Your task to perform on an android device: Clear the cart on walmart.com. Image 0: 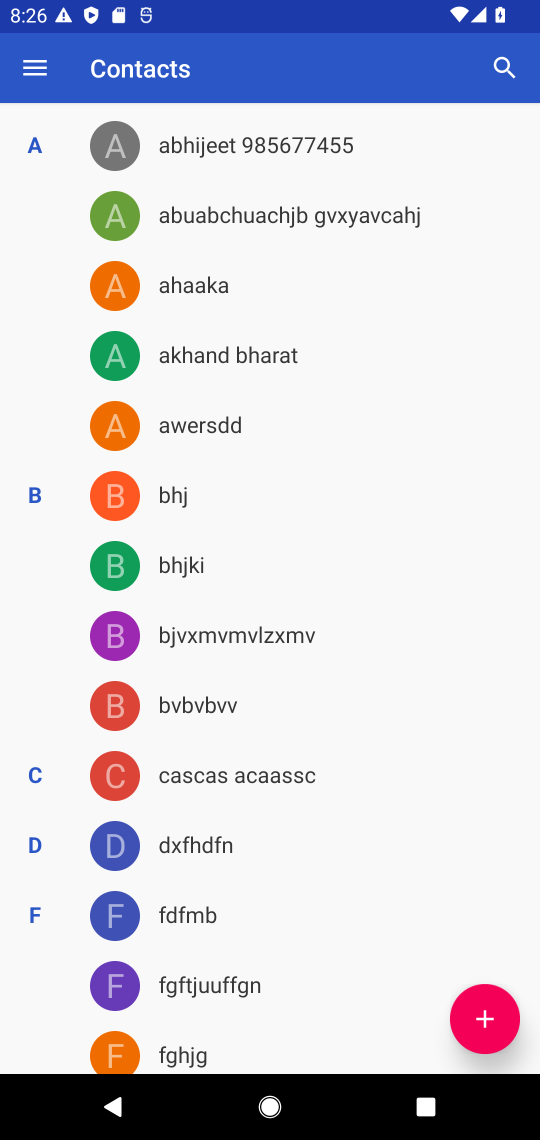
Step 0: press home button
Your task to perform on an android device: Clear the cart on walmart.com. Image 1: 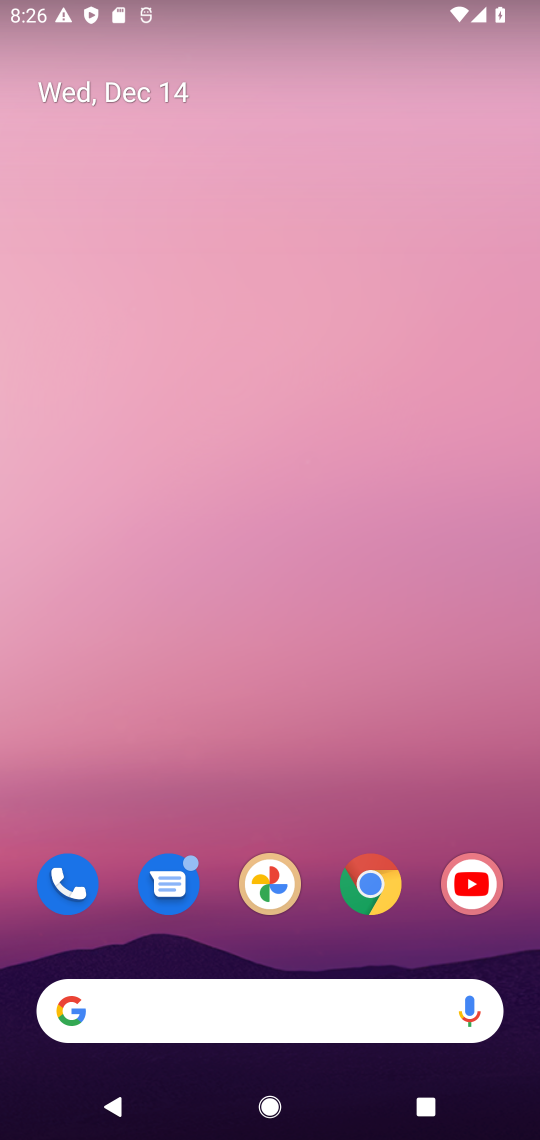
Step 1: click (379, 876)
Your task to perform on an android device: Clear the cart on walmart.com. Image 2: 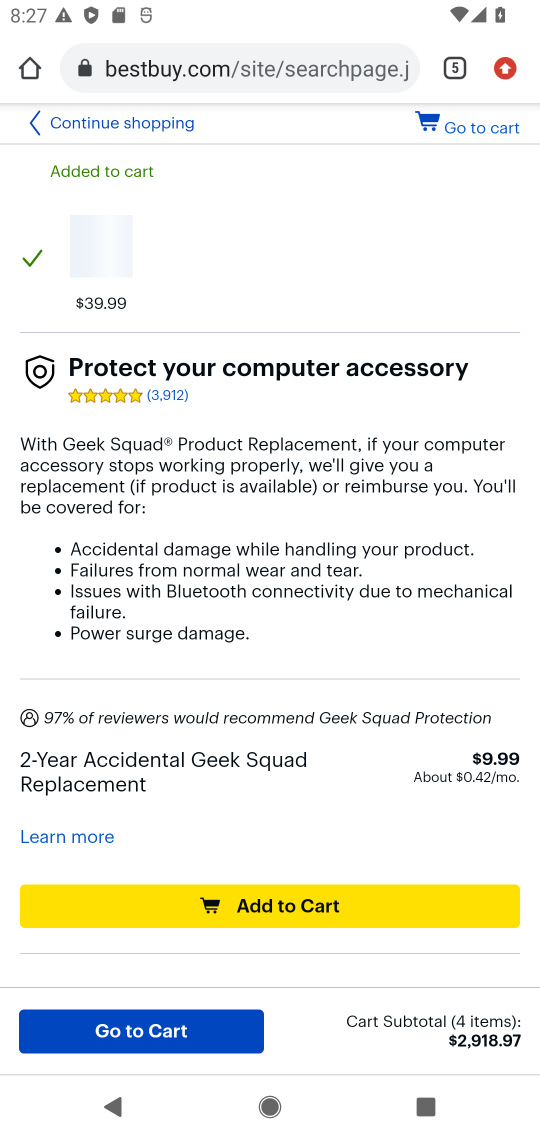
Step 2: click (446, 64)
Your task to perform on an android device: Clear the cart on walmart.com. Image 3: 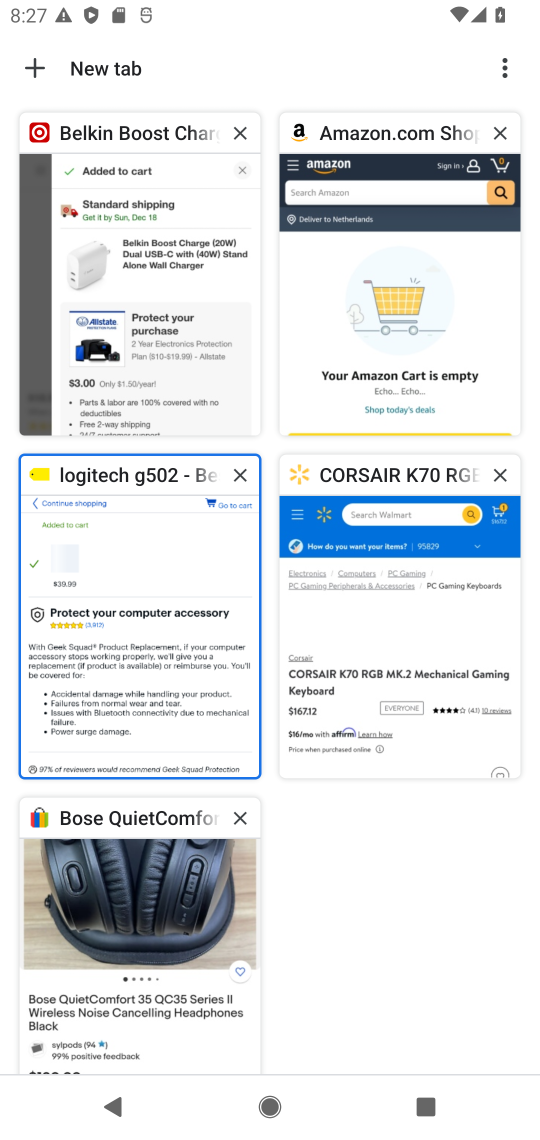
Step 3: click (385, 563)
Your task to perform on an android device: Clear the cart on walmart.com. Image 4: 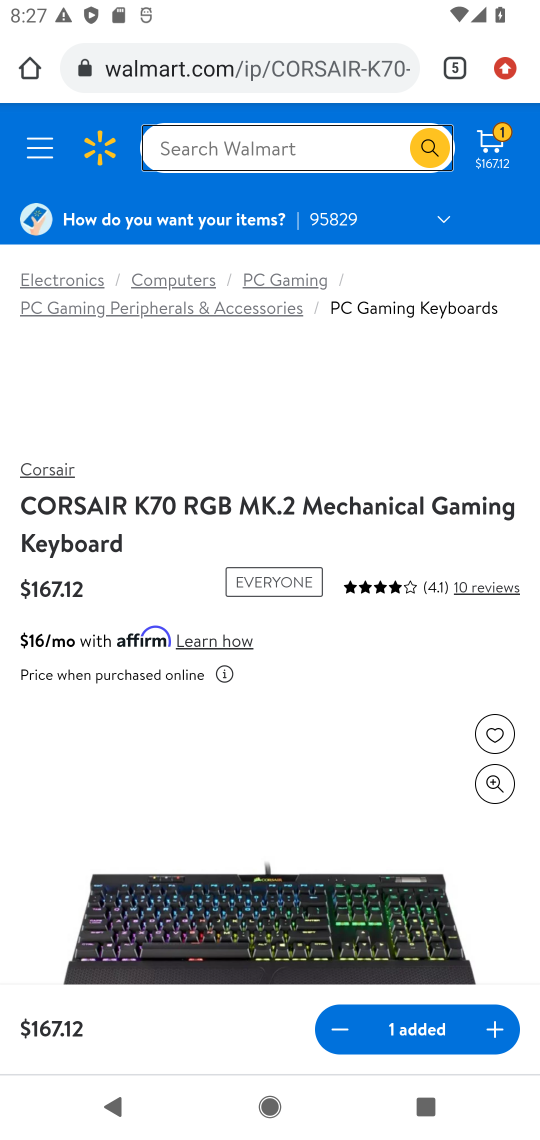
Step 4: click (502, 124)
Your task to perform on an android device: Clear the cart on walmart.com. Image 5: 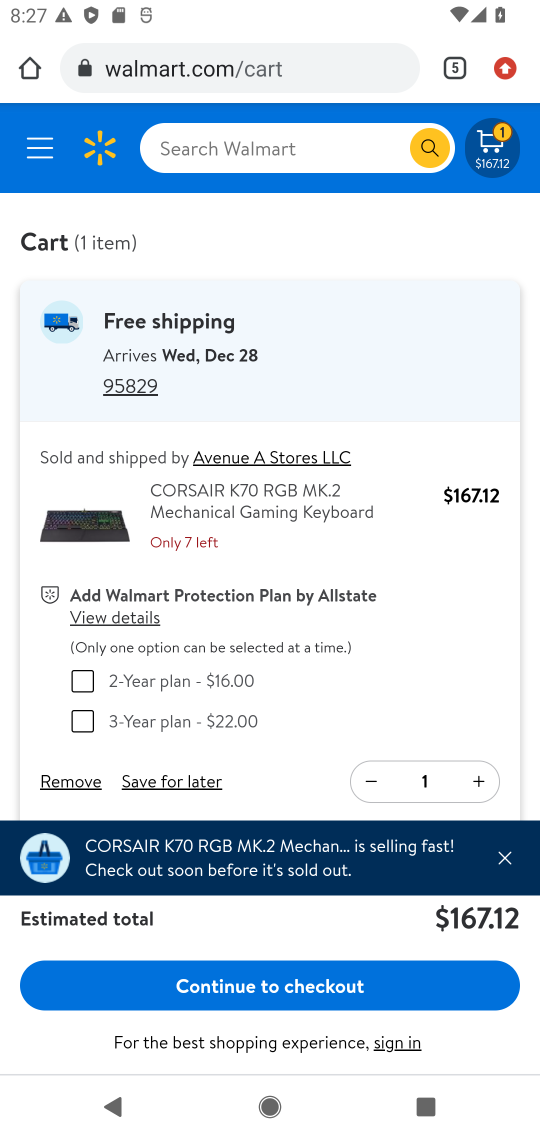
Step 5: click (507, 862)
Your task to perform on an android device: Clear the cart on walmart.com. Image 6: 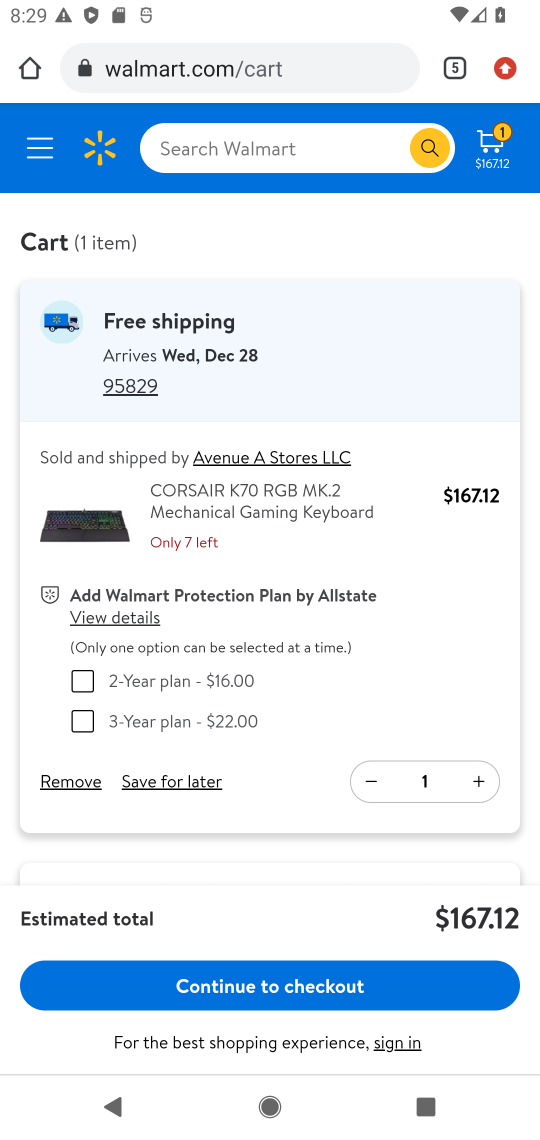
Step 6: task complete